Your task to perform on an android device: uninstall "DuckDuckGo Privacy Browser" Image 0: 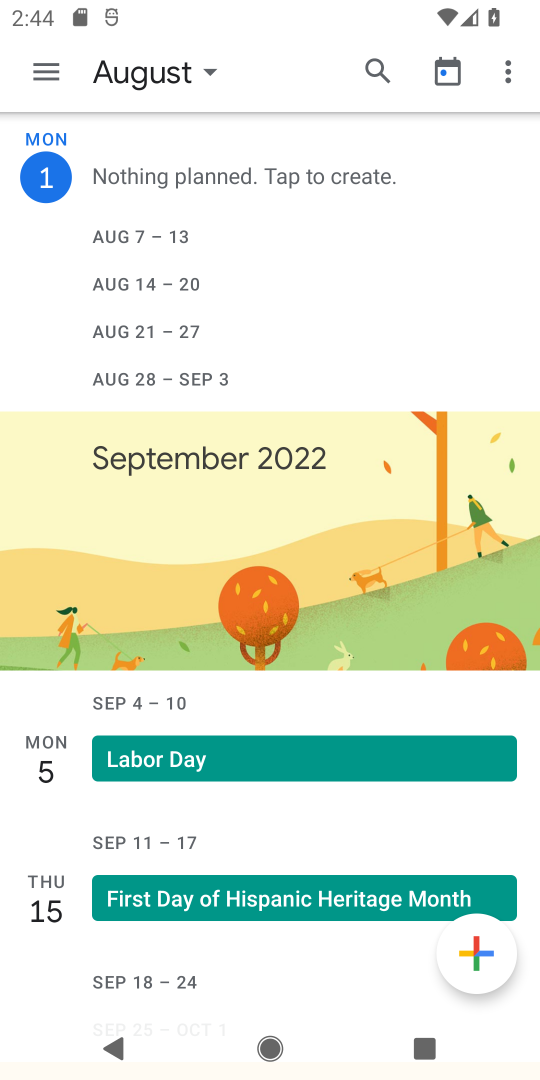
Step 0: press home button
Your task to perform on an android device: uninstall "DuckDuckGo Privacy Browser" Image 1: 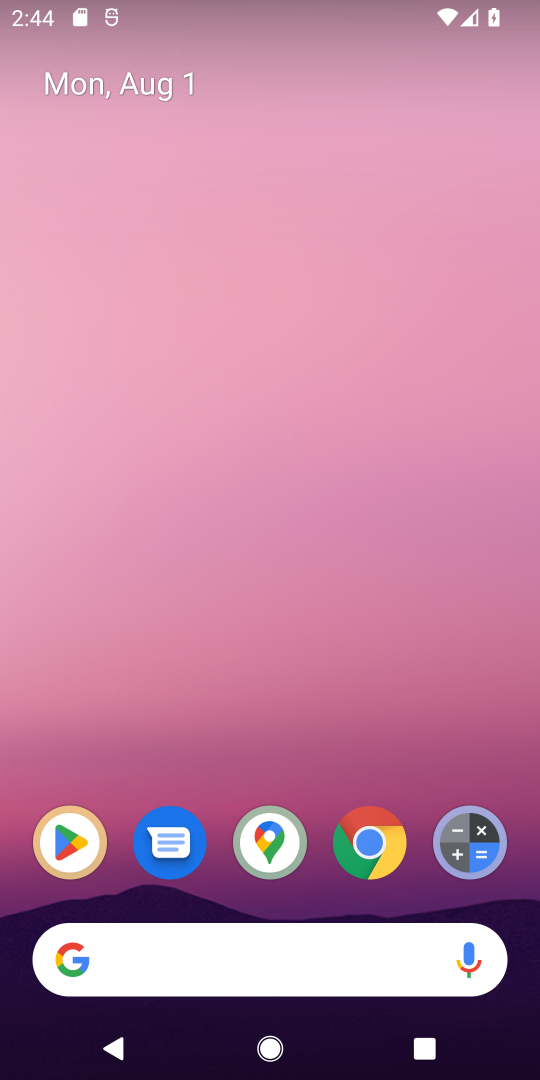
Step 1: click (79, 837)
Your task to perform on an android device: uninstall "DuckDuckGo Privacy Browser" Image 2: 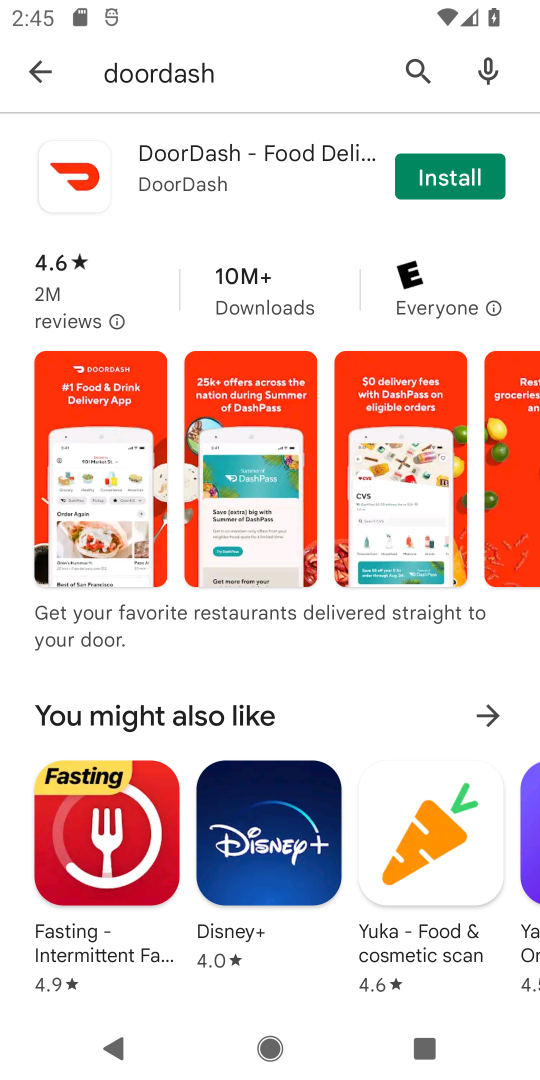
Step 2: click (217, 83)
Your task to perform on an android device: uninstall "DuckDuckGo Privacy Browser" Image 3: 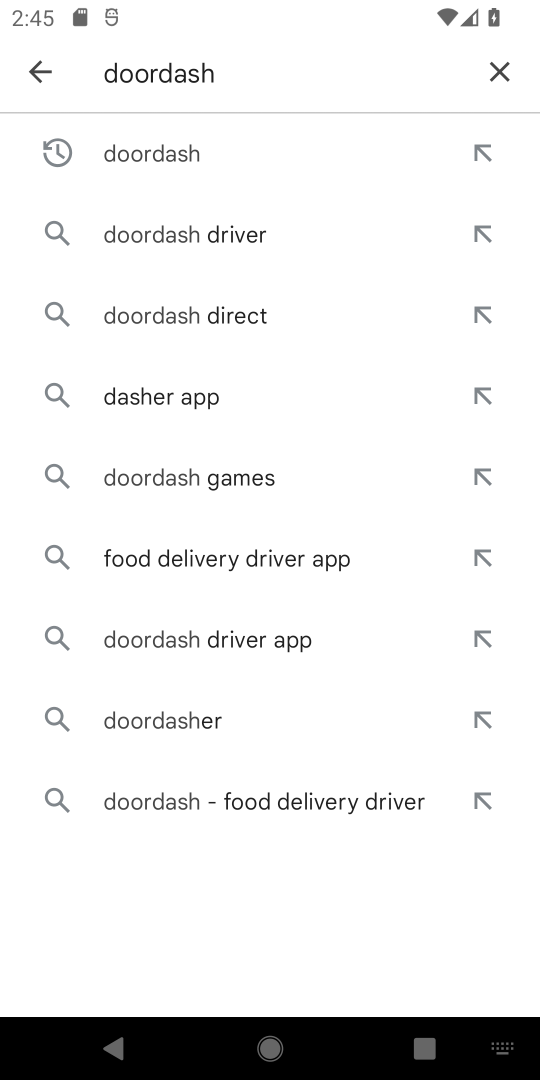
Step 3: click (506, 71)
Your task to perform on an android device: uninstall "DuckDuckGo Privacy Browser" Image 4: 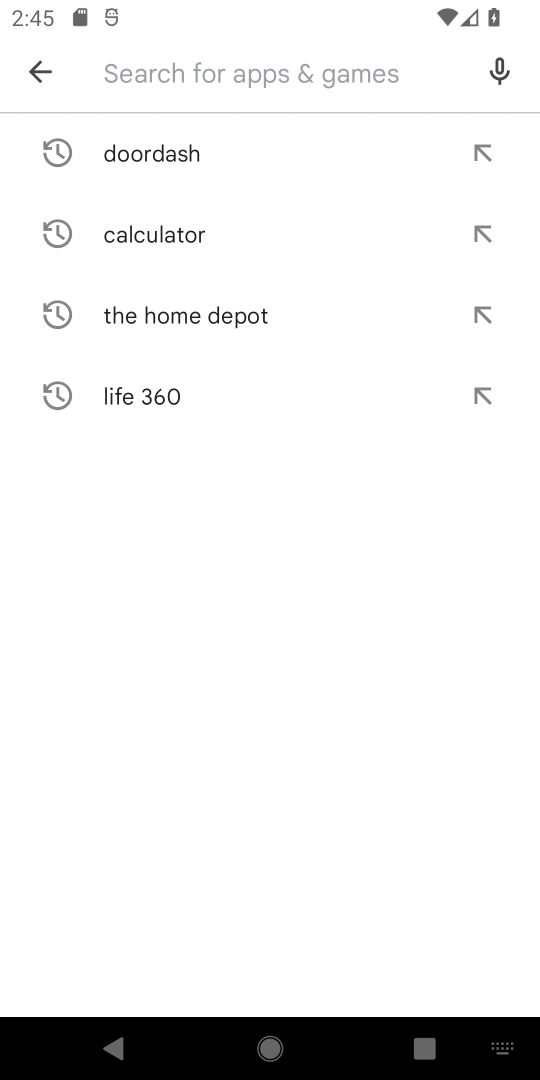
Step 4: type "duckduckgo"
Your task to perform on an android device: uninstall "DuckDuckGo Privacy Browser" Image 5: 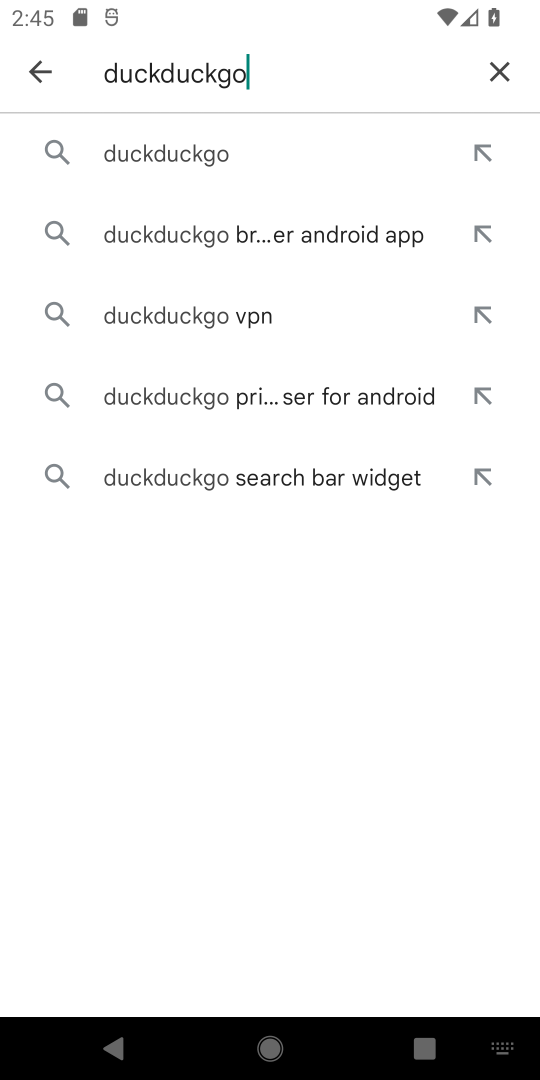
Step 5: click (179, 173)
Your task to perform on an android device: uninstall "DuckDuckGo Privacy Browser" Image 6: 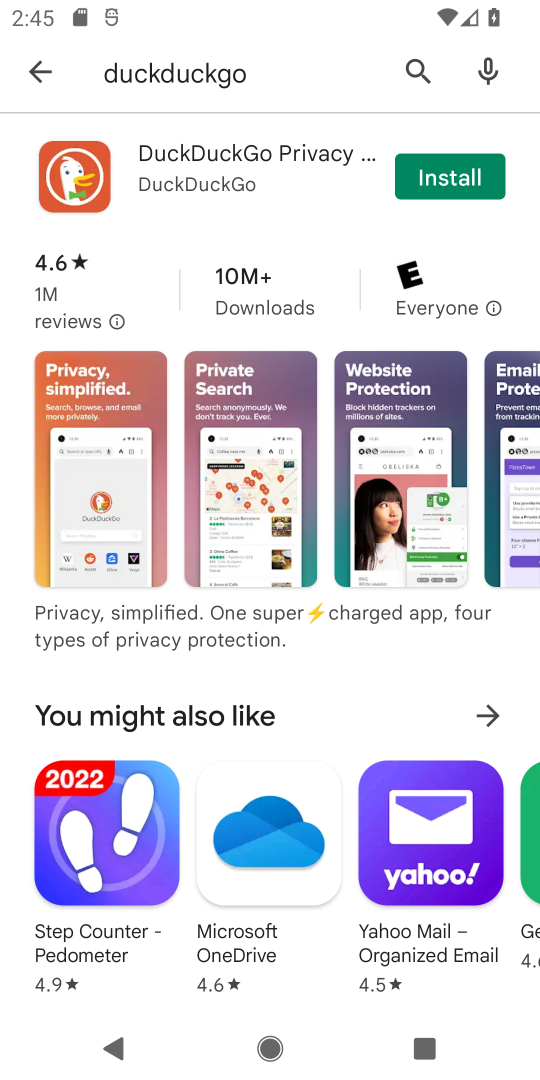
Step 6: click (195, 191)
Your task to perform on an android device: uninstall "DuckDuckGo Privacy Browser" Image 7: 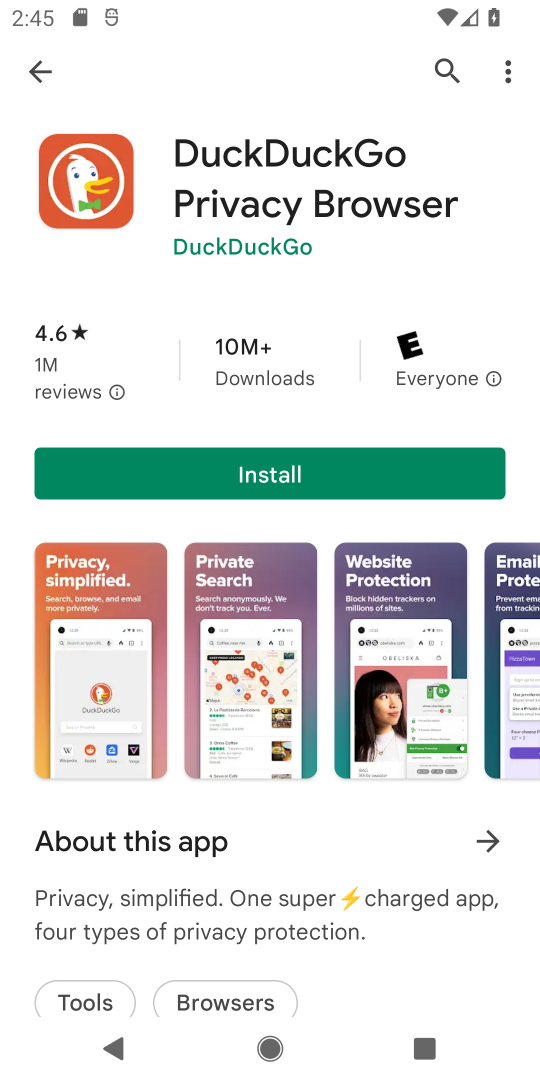
Step 7: task complete